Your task to perform on an android device: Open sound settings Image 0: 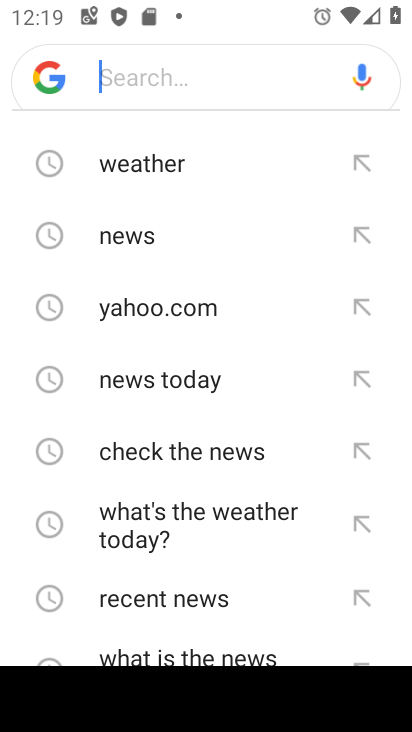
Step 0: press home button
Your task to perform on an android device: Open sound settings Image 1: 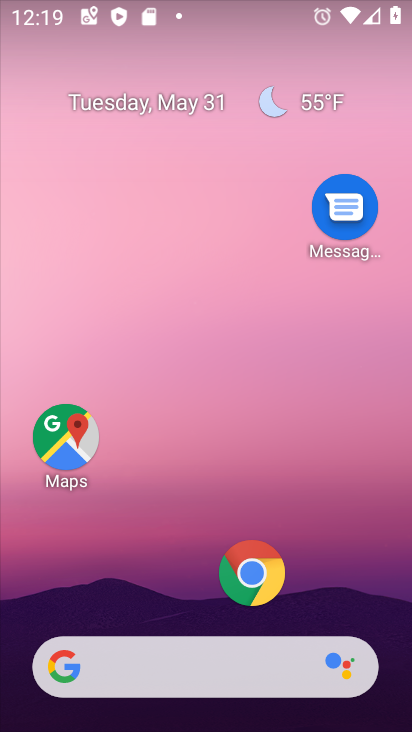
Step 1: drag from (179, 597) to (147, 3)
Your task to perform on an android device: Open sound settings Image 2: 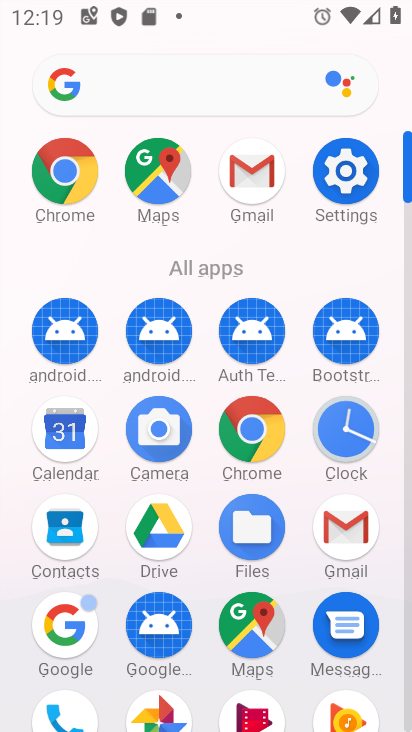
Step 2: click (342, 174)
Your task to perform on an android device: Open sound settings Image 3: 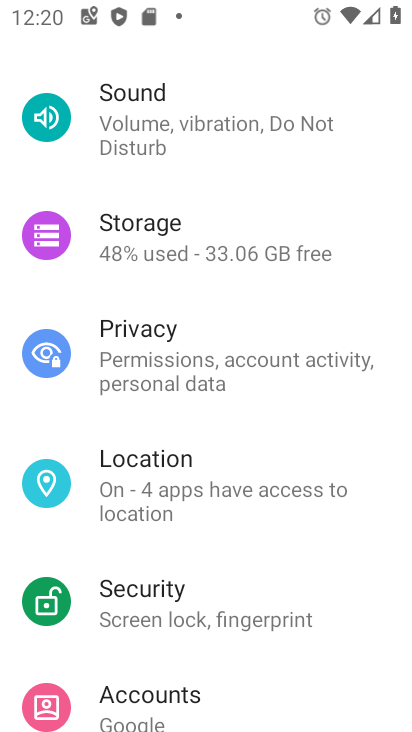
Step 3: click (140, 146)
Your task to perform on an android device: Open sound settings Image 4: 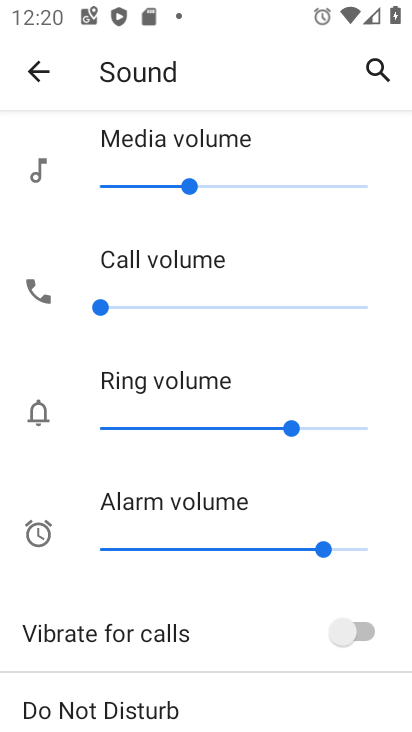
Step 4: task complete